Your task to perform on an android device: Open calendar and show me the second week of next month Image 0: 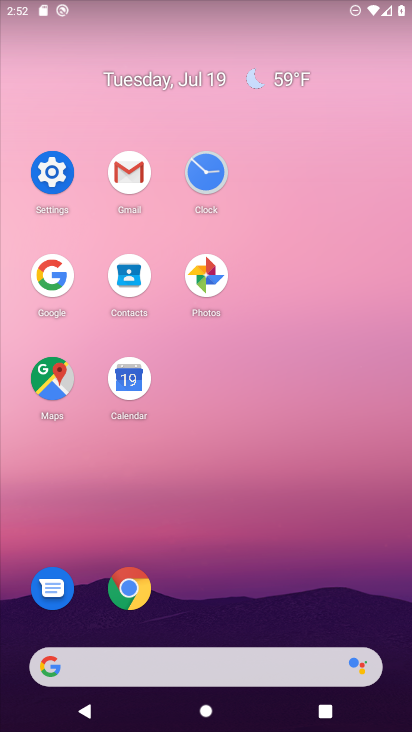
Step 0: click (136, 382)
Your task to perform on an android device: Open calendar and show me the second week of next month Image 1: 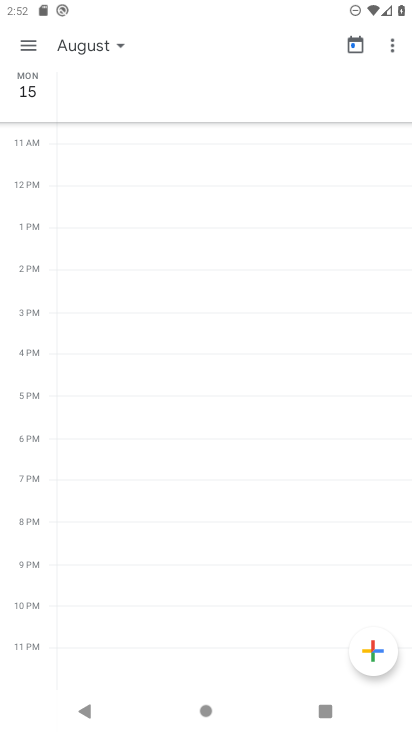
Step 1: click (33, 41)
Your task to perform on an android device: Open calendar and show me the second week of next month Image 2: 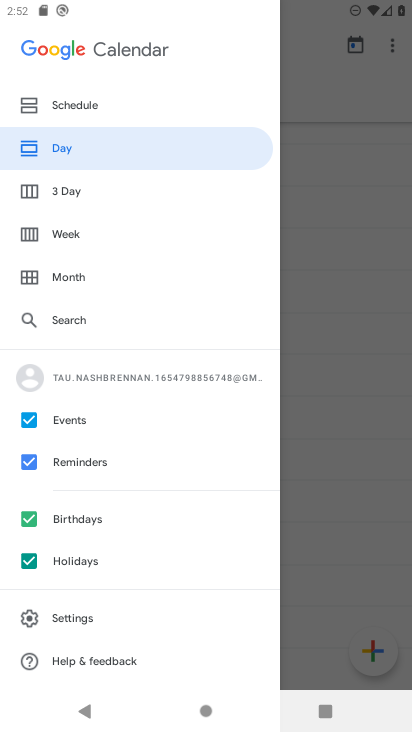
Step 2: click (129, 240)
Your task to perform on an android device: Open calendar and show me the second week of next month Image 3: 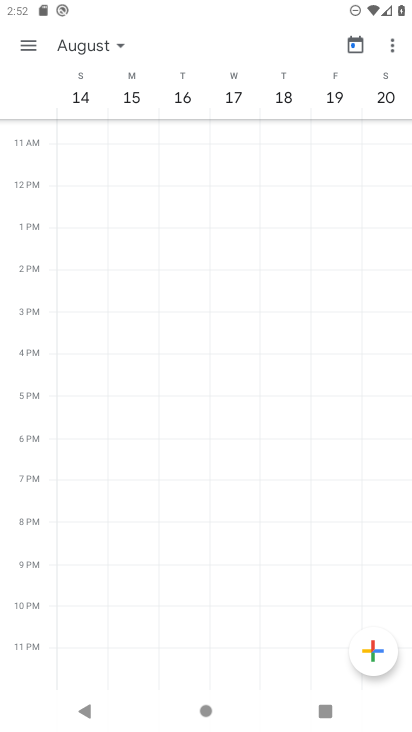
Step 3: task complete